Your task to perform on an android device: Search for pizza restaurants on Maps Image 0: 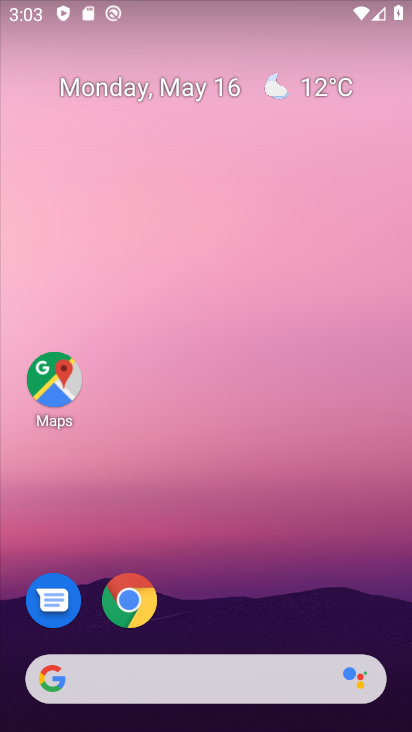
Step 0: click (43, 381)
Your task to perform on an android device: Search for pizza restaurants on Maps Image 1: 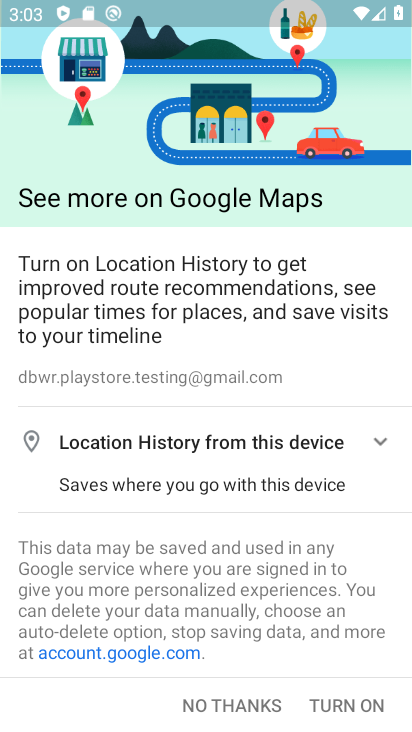
Step 1: click (359, 701)
Your task to perform on an android device: Search for pizza restaurants on Maps Image 2: 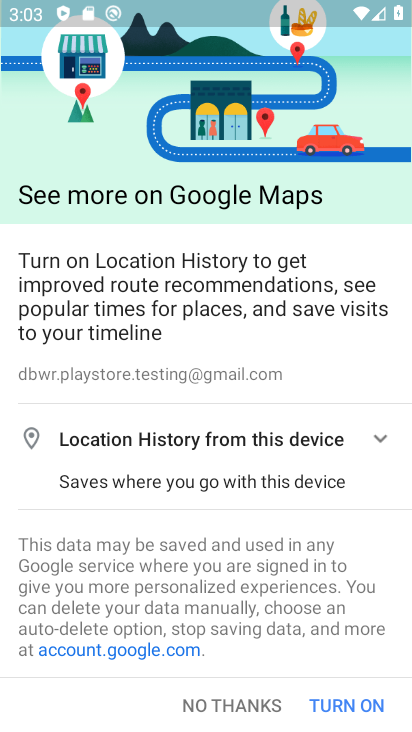
Step 2: click (374, 706)
Your task to perform on an android device: Search for pizza restaurants on Maps Image 3: 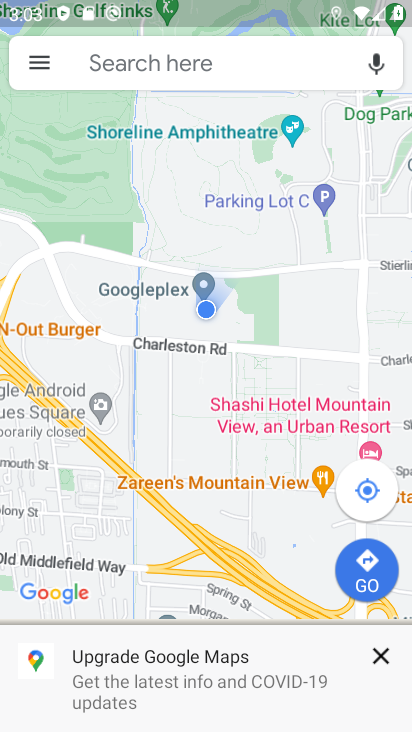
Step 3: click (178, 58)
Your task to perform on an android device: Search for pizza restaurants on Maps Image 4: 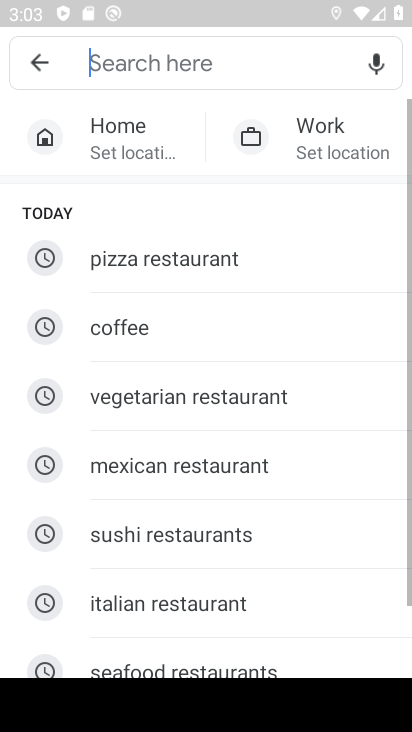
Step 4: click (186, 266)
Your task to perform on an android device: Search for pizza restaurants on Maps Image 5: 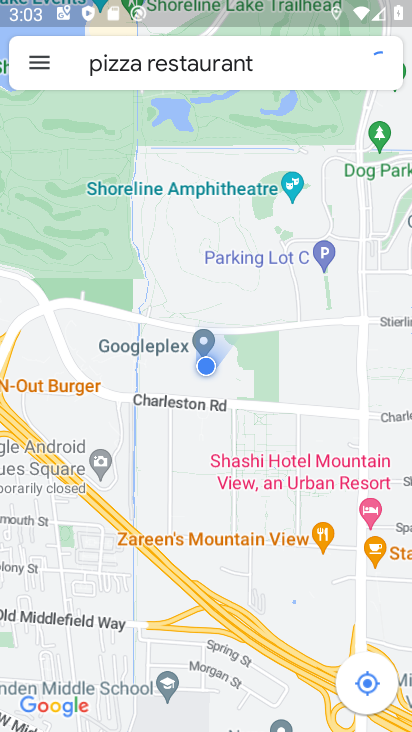
Step 5: task complete